Your task to perform on an android device: Go to ESPN.com Image 0: 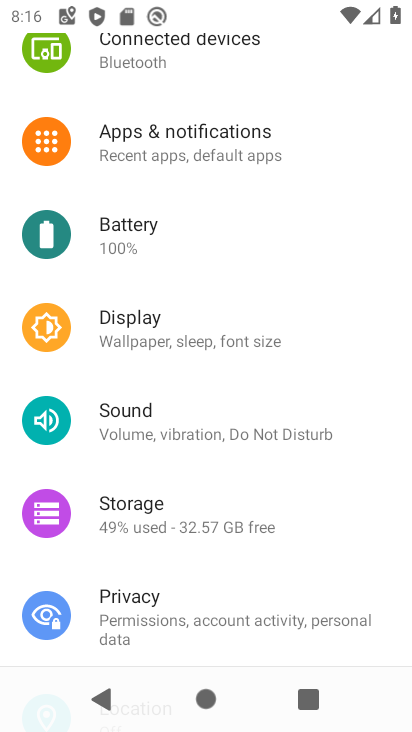
Step 0: press home button
Your task to perform on an android device: Go to ESPN.com Image 1: 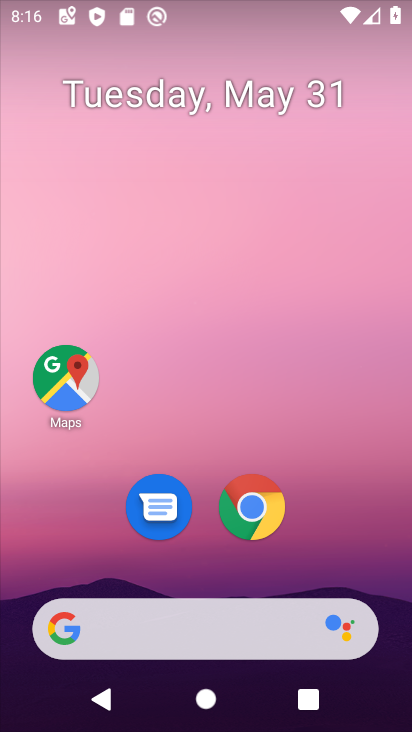
Step 1: click (256, 512)
Your task to perform on an android device: Go to ESPN.com Image 2: 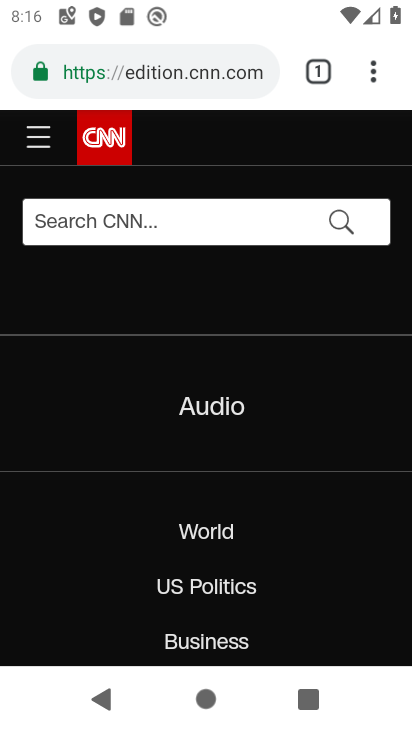
Step 2: click (176, 61)
Your task to perform on an android device: Go to ESPN.com Image 3: 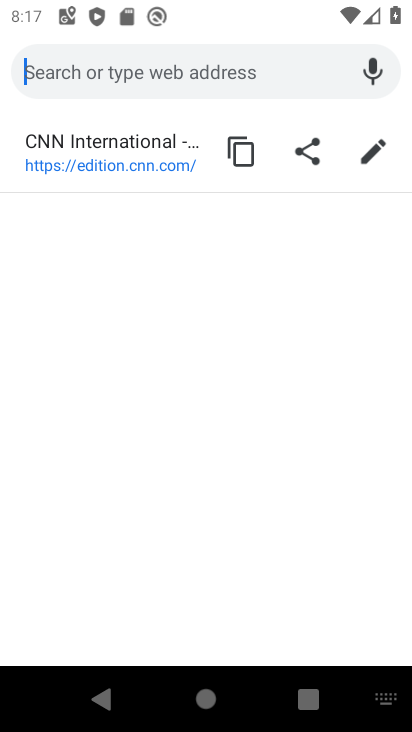
Step 3: type "espn.com"
Your task to perform on an android device: Go to ESPN.com Image 4: 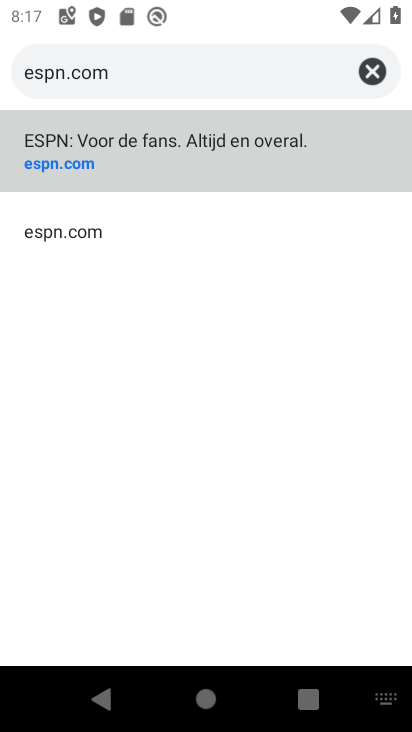
Step 4: click (49, 164)
Your task to perform on an android device: Go to ESPN.com Image 5: 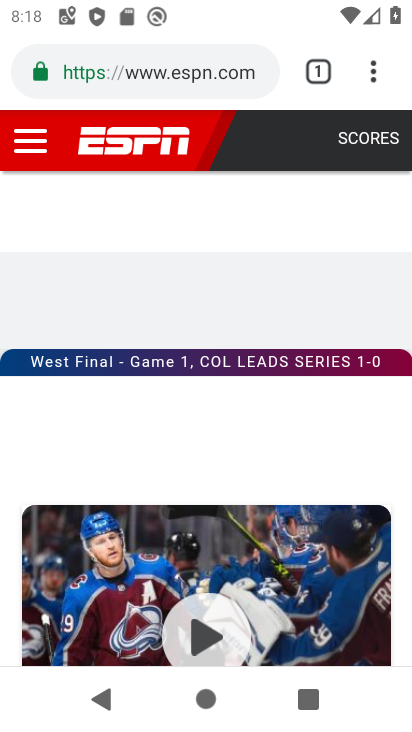
Step 5: task complete